Your task to perform on an android device: manage bookmarks in the chrome app Image 0: 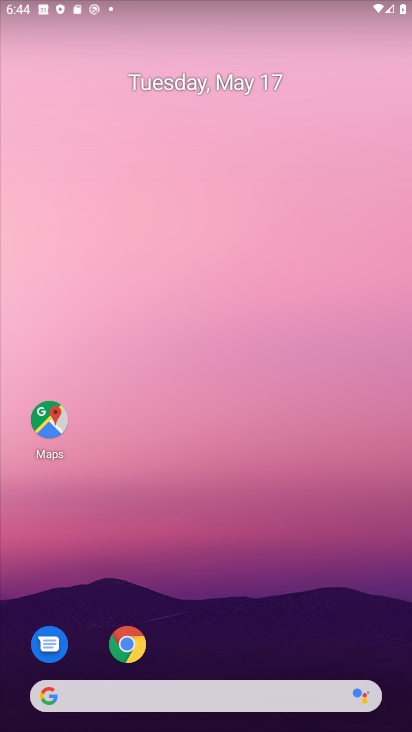
Step 0: drag from (356, 615) to (323, 37)
Your task to perform on an android device: manage bookmarks in the chrome app Image 1: 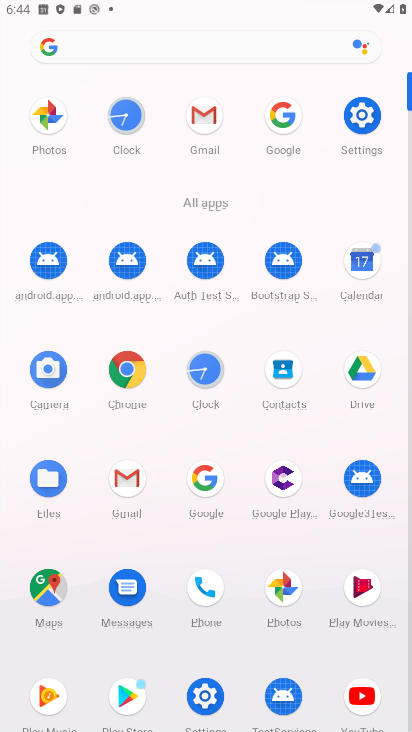
Step 1: click (128, 361)
Your task to perform on an android device: manage bookmarks in the chrome app Image 2: 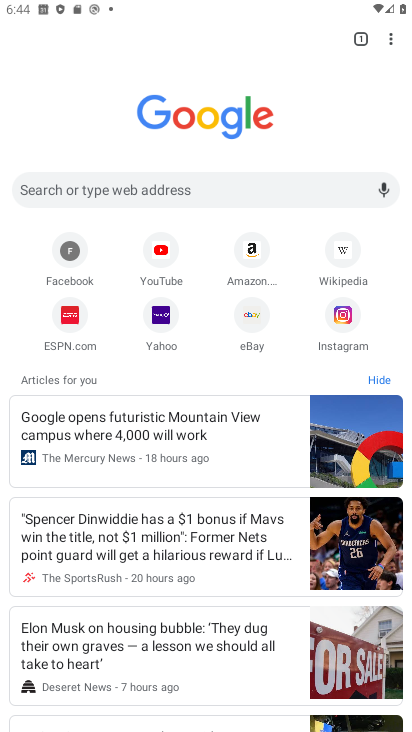
Step 2: click (394, 36)
Your task to perform on an android device: manage bookmarks in the chrome app Image 3: 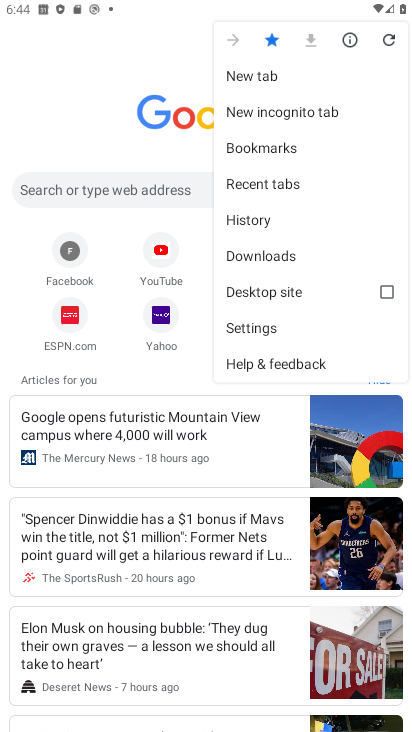
Step 3: click (259, 151)
Your task to perform on an android device: manage bookmarks in the chrome app Image 4: 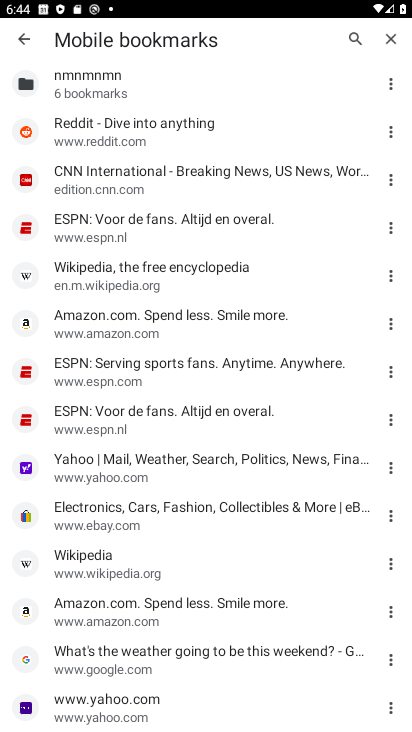
Step 4: task complete